Your task to perform on an android device: Clear the cart on target.com. Image 0: 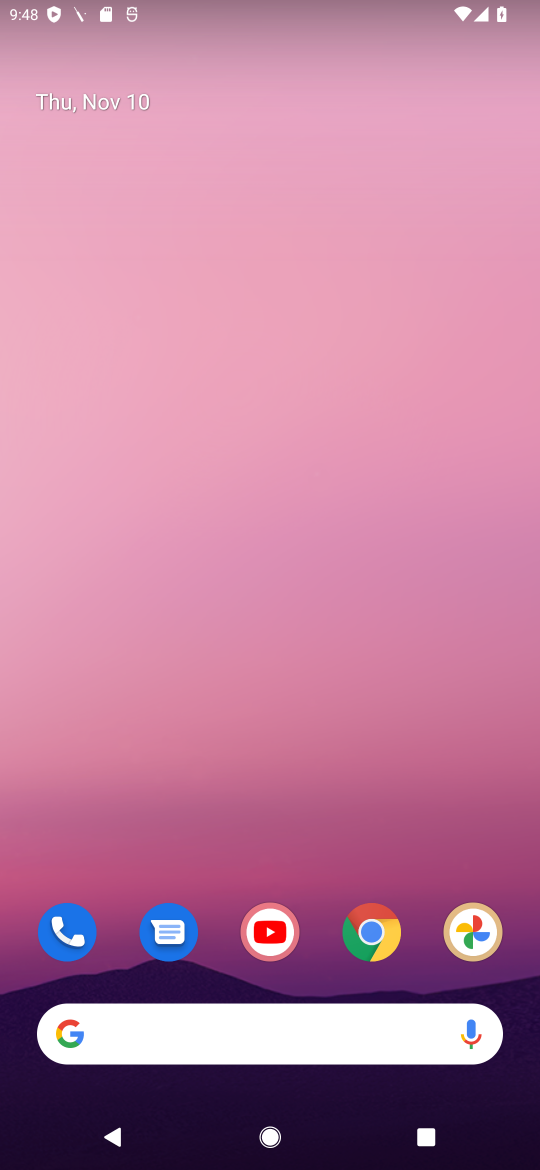
Step 0: click (369, 931)
Your task to perform on an android device: Clear the cart on target.com. Image 1: 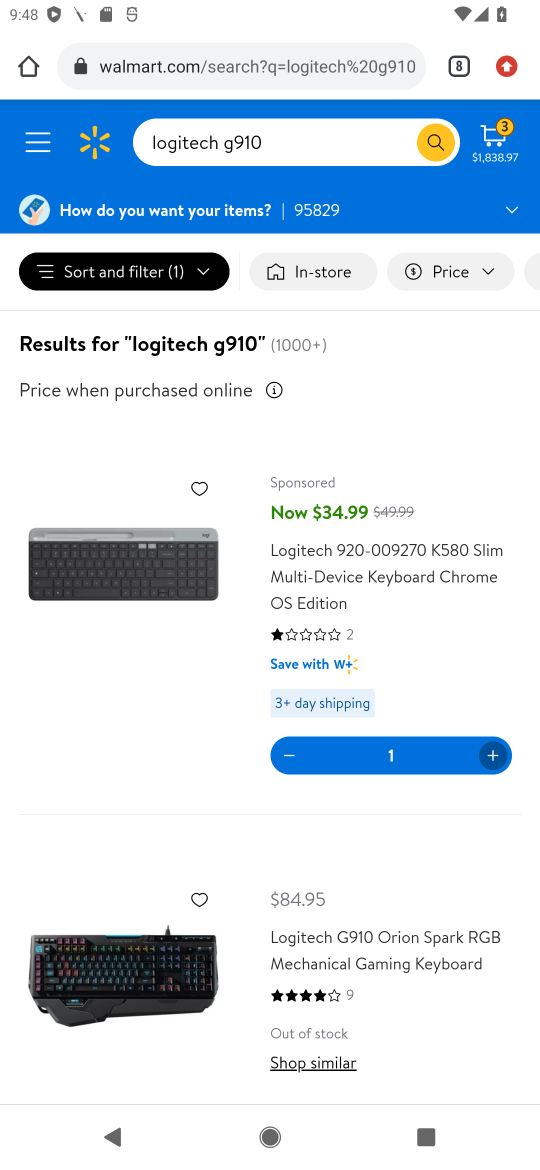
Step 1: click (456, 61)
Your task to perform on an android device: Clear the cart on target.com. Image 2: 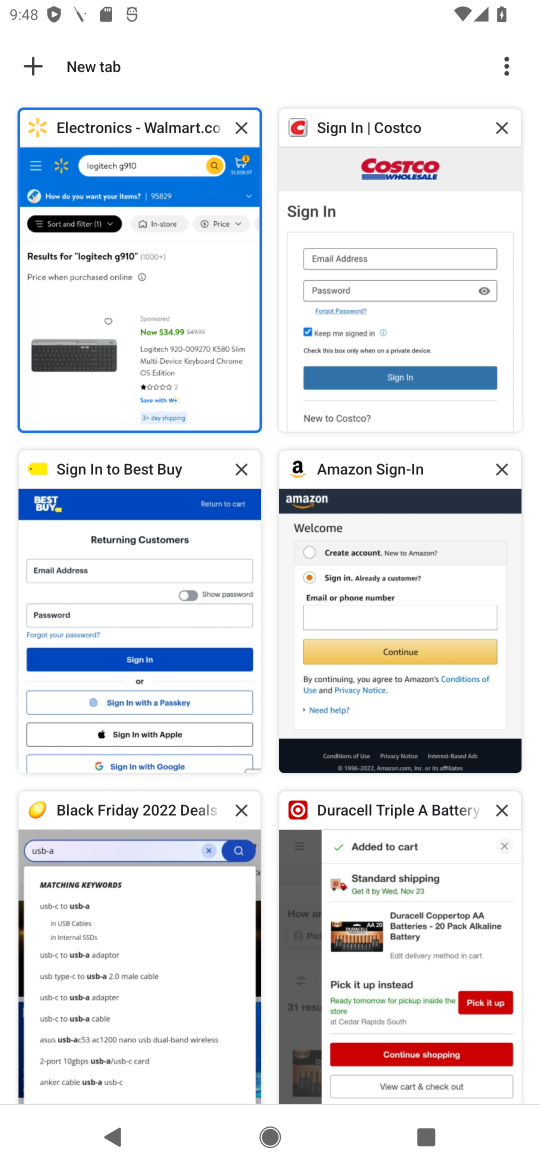
Step 2: click (361, 933)
Your task to perform on an android device: Clear the cart on target.com. Image 3: 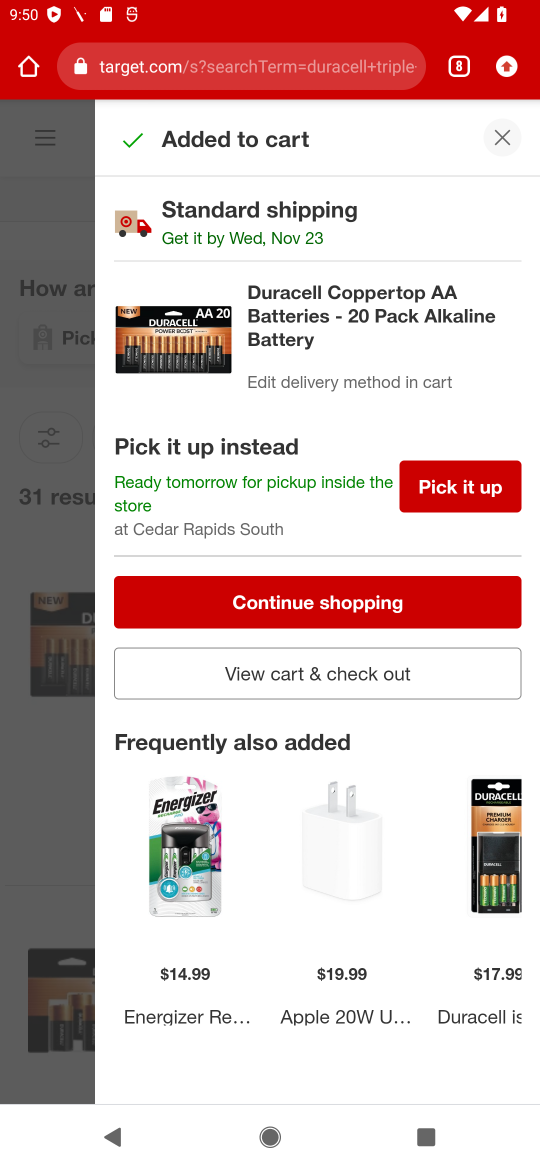
Step 3: click (321, 672)
Your task to perform on an android device: Clear the cart on target.com. Image 4: 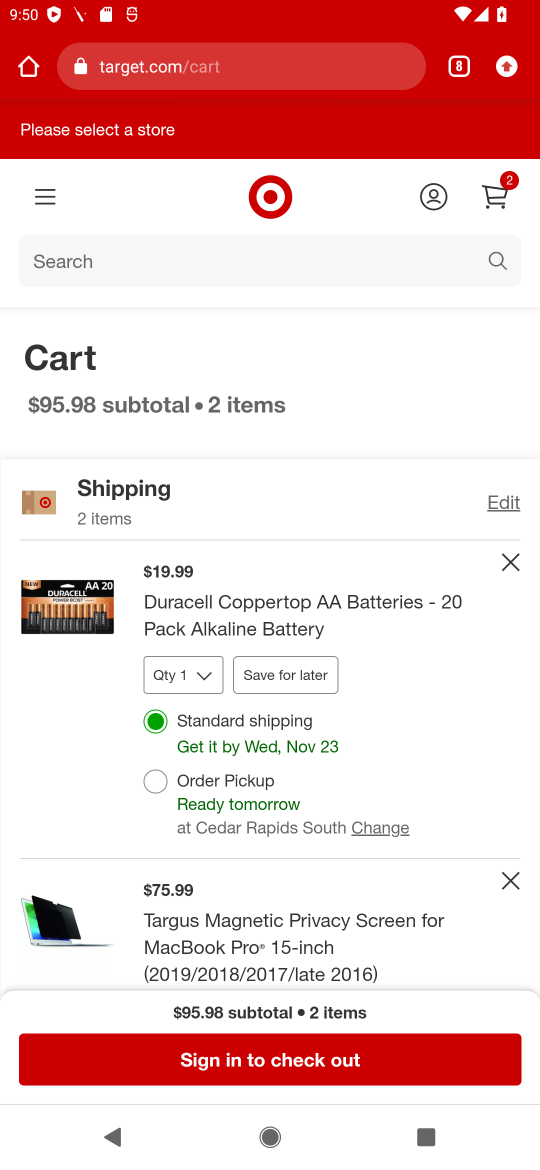
Step 4: click (507, 556)
Your task to perform on an android device: Clear the cart on target.com. Image 5: 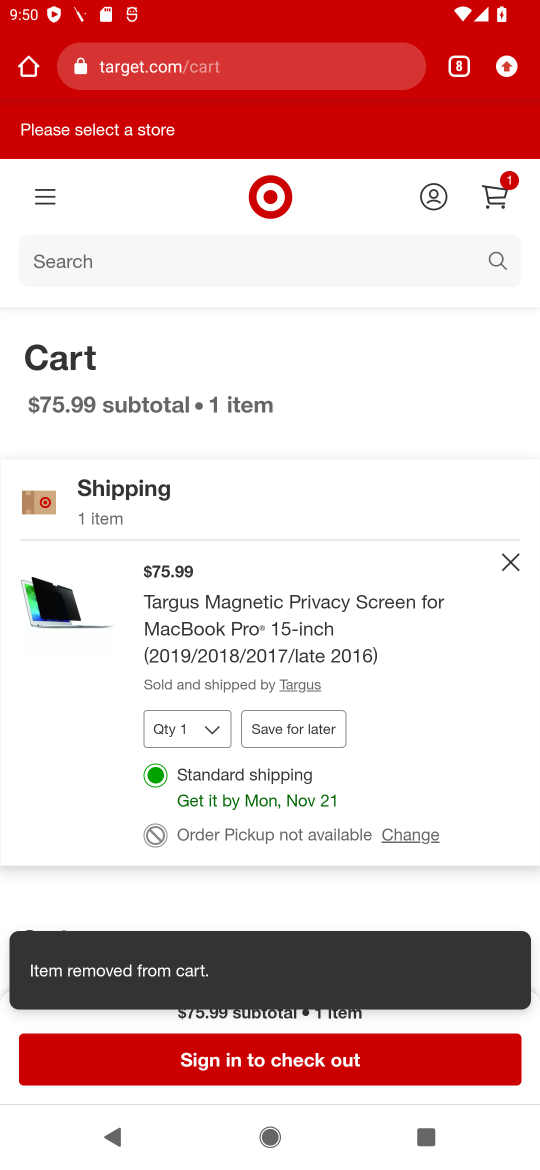
Step 5: click (510, 565)
Your task to perform on an android device: Clear the cart on target.com. Image 6: 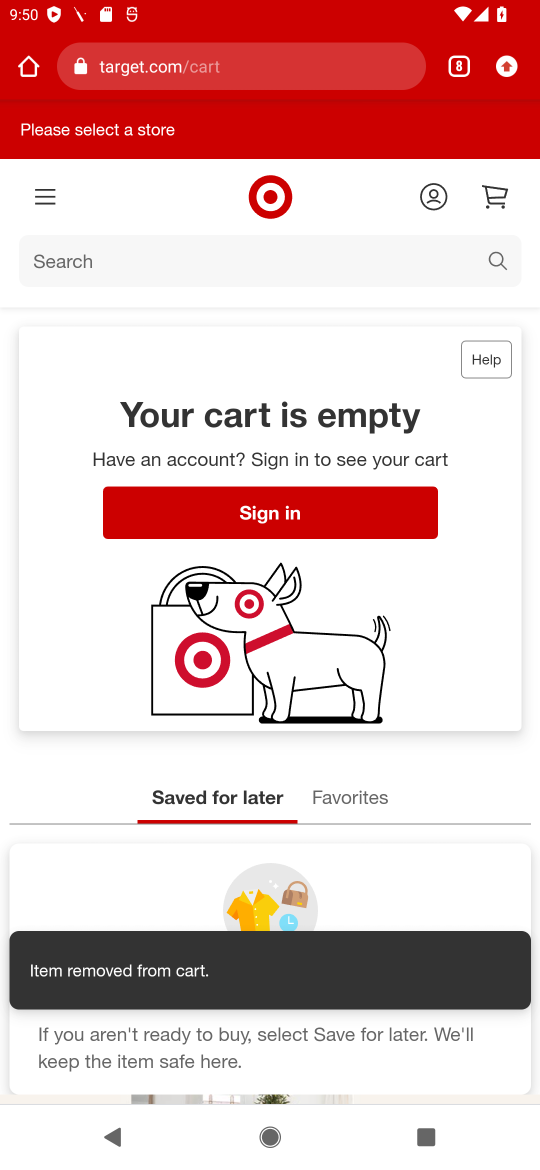
Step 6: task complete